Your task to perform on an android device: What's the weather going to be tomorrow? Image 0: 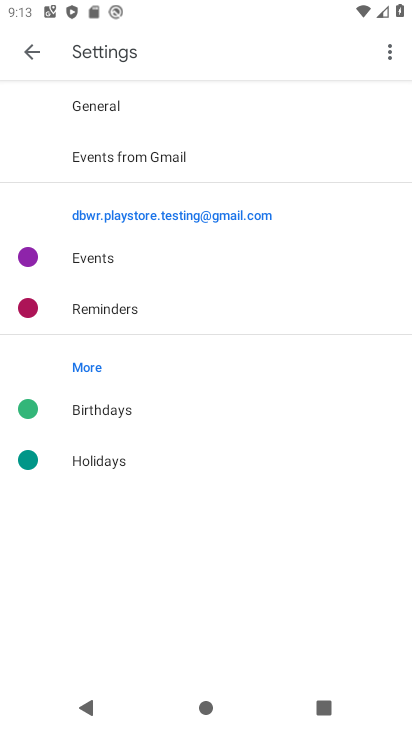
Step 0: press home button
Your task to perform on an android device: What's the weather going to be tomorrow? Image 1: 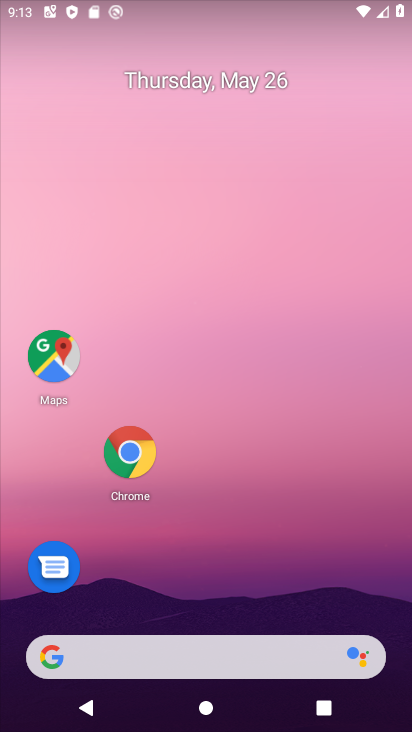
Step 1: click (54, 660)
Your task to perform on an android device: What's the weather going to be tomorrow? Image 2: 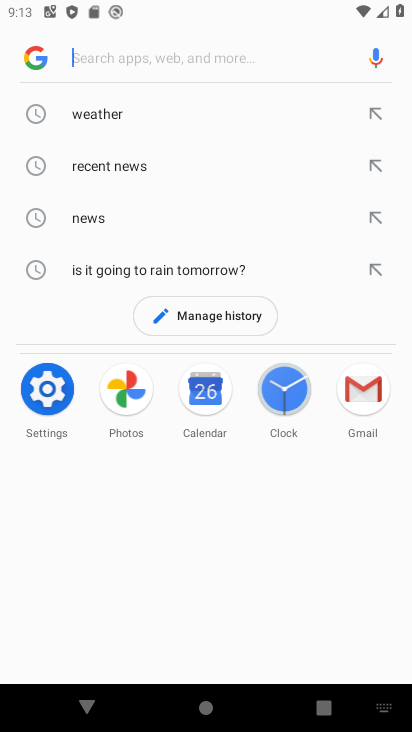
Step 2: click (112, 115)
Your task to perform on an android device: What's the weather going to be tomorrow? Image 3: 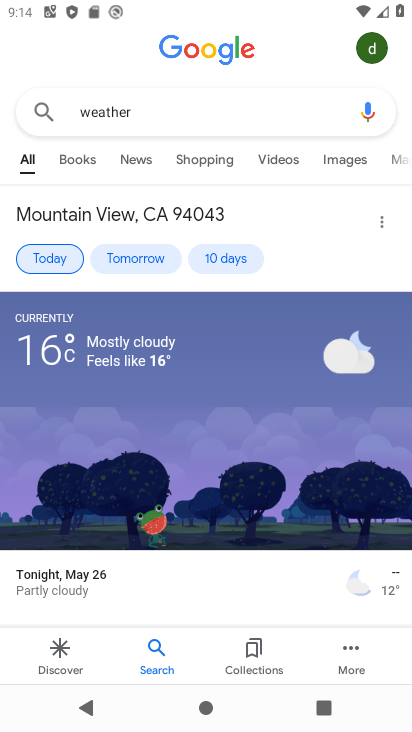
Step 3: click (156, 256)
Your task to perform on an android device: What's the weather going to be tomorrow? Image 4: 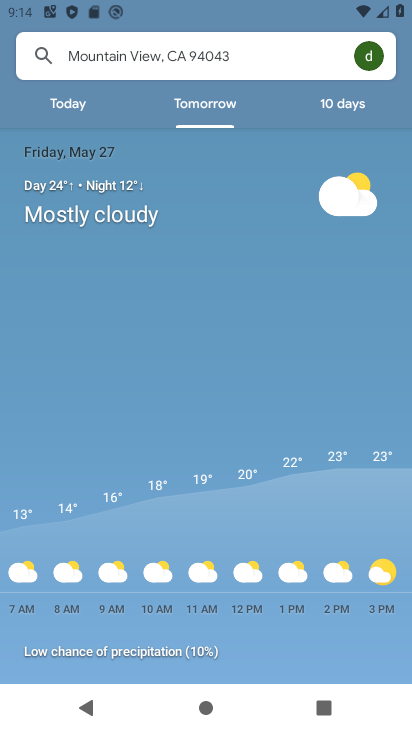
Step 4: task complete